Your task to perform on an android device: Open wifi settings Image 0: 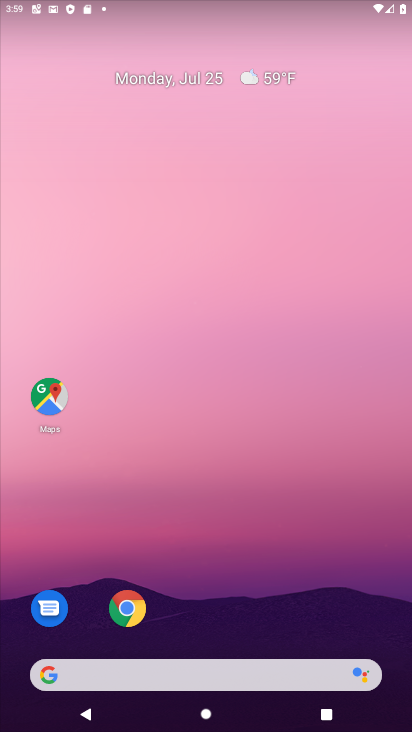
Step 0: drag from (206, 621) to (406, 384)
Your task to perform on an android device: Open wifi settings Image 1: 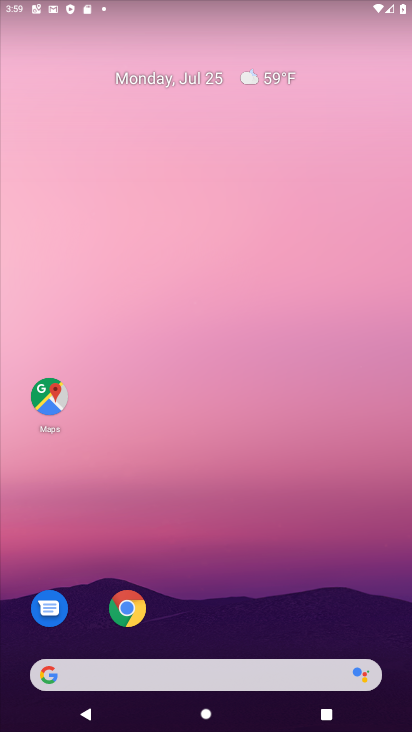
Step 1: drag from (199, 682) to (208, 14)
Your task to perform on an android device: Open wifi settings Image 2: 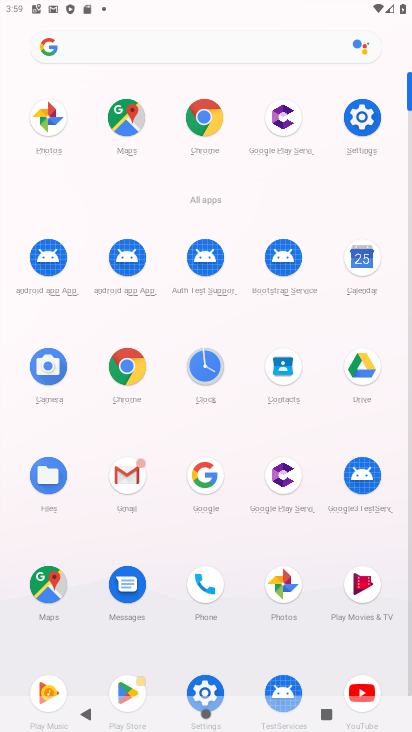
Step 2: click (358, 113)
Your task to perform on an android device: Open wifi settings Image 3: 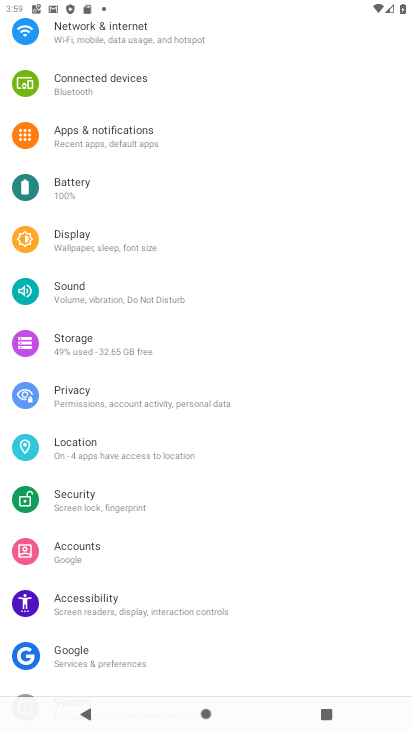
Step 3: drag from (237, 91) to (230, 468)
Your task to perform on an android device: Open wifi settings Image 4: 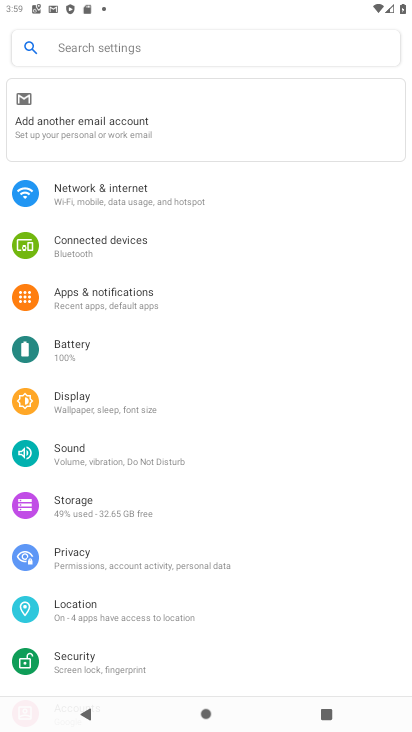
Step 4: click (118, 208)
Your task to perform on an android device: Open wifi settings Image 5: 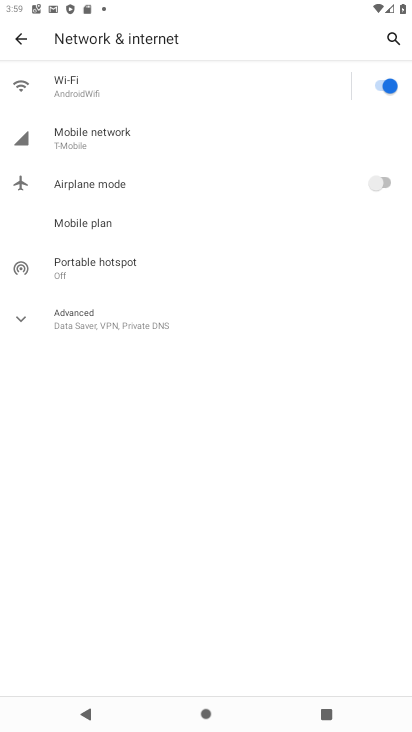
Step 5: task complete